Your task to perform on an android device: Do I have any events this weekend? Image 0: 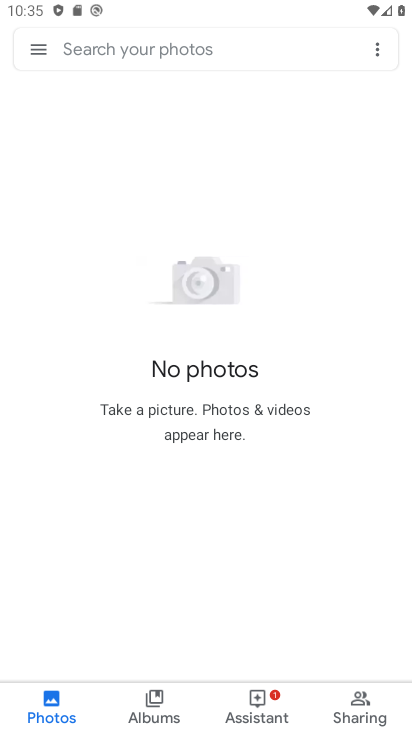
Step 0: press home button
Your task to perform on an android device: Do I have any events this weekend? Image 1: 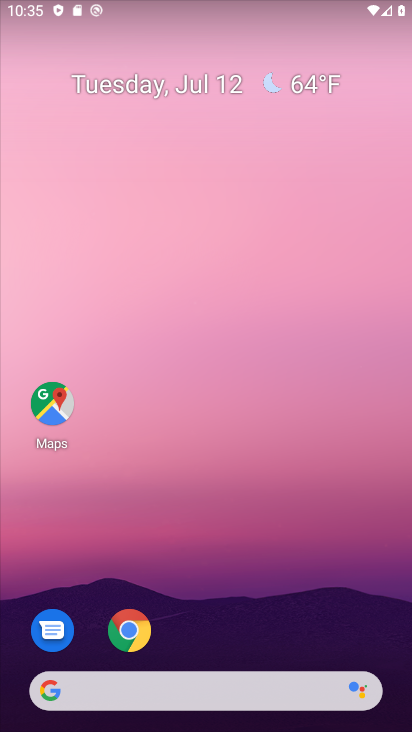
Step 1: drag from (341, 657) to (392, 394)
Your task to perform on an android device: Do I have any events this weekend? Image 2: 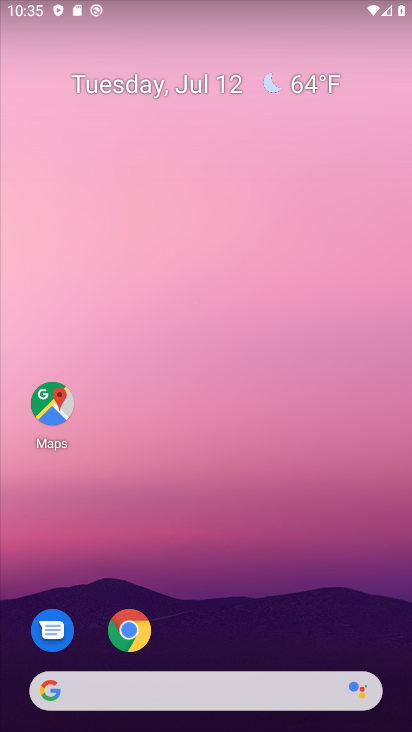
Step 2: drag from (374, 189) to (375, 478)
Your task to perform on an android device: Do I have any events this weekend? Image 3: 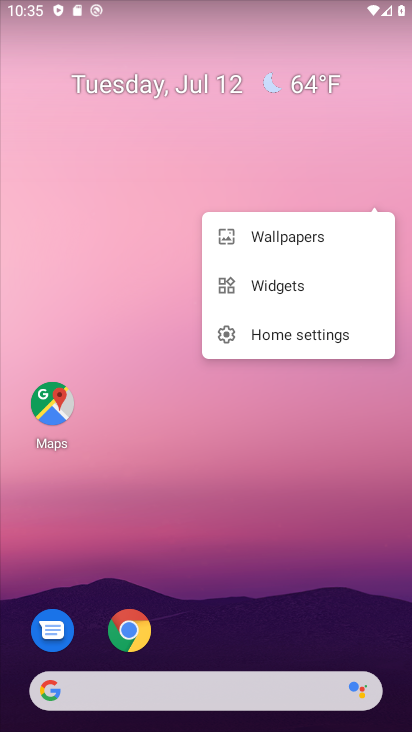
Step 3: drag from (375, 647) to (404, 482)
Your task to perform on an android device: Do I have any events this weekend? Image 4: 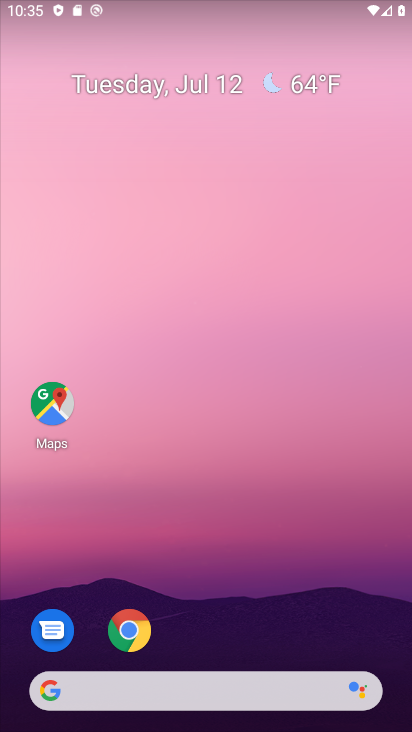
Step 4: drag from (269, 623) to (401, 16)
Your task to perform on an android device: Do I have any events this weekend? Image 5: 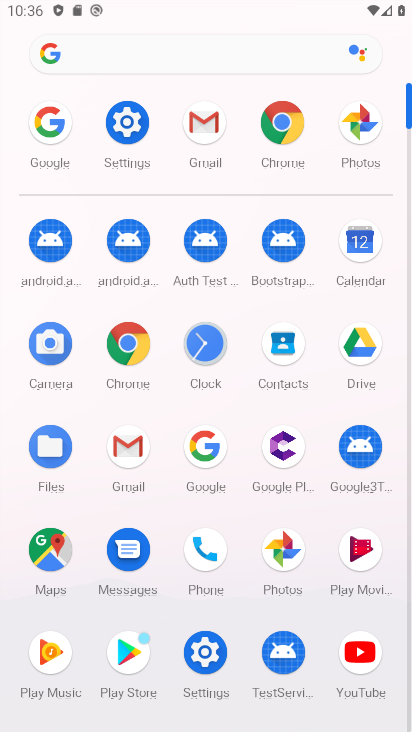
Step 5: click (359, 244)
Your task to perform on an android device: Do I have any events this weekend? Image 6: 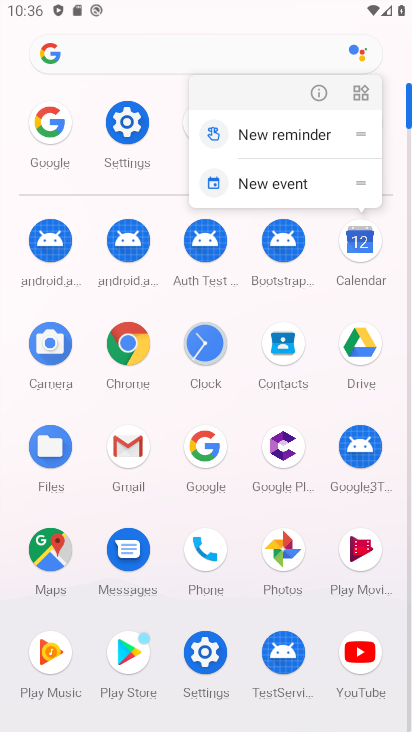
Step 6: click (363, 271)
Your task to perform on an android device: Do I have any events this weekend? Image 7: 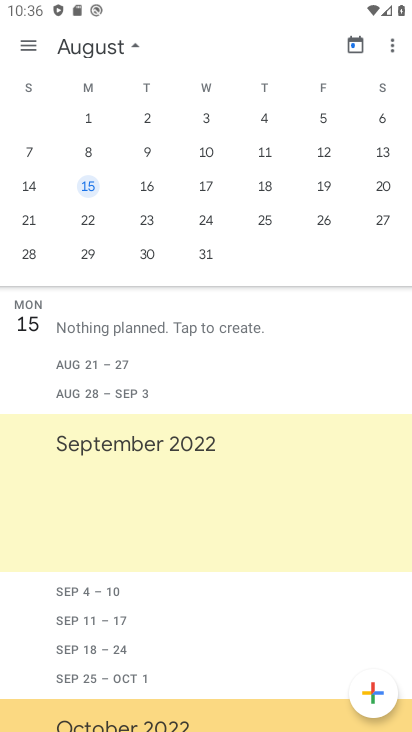
Step 7: task complete